Your task to perform on an android device: open app "Roku - Official Remote Control" (install if not already installed) and go to login screen Image 0: 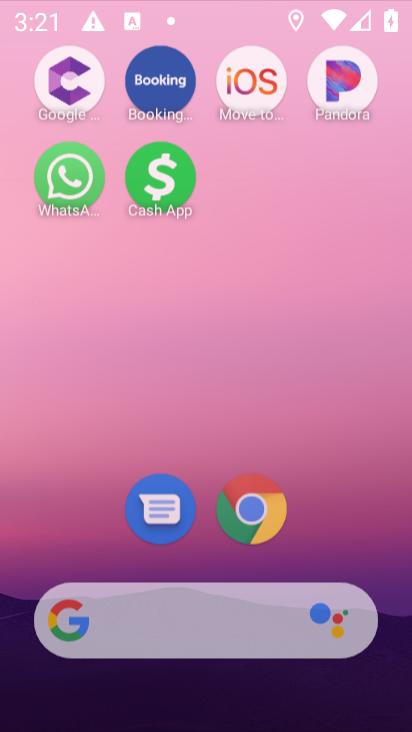
Step 0: drag from (284, 292) to (258, 22)
Your task to perform on an android device: open app "Roku - Official Remote Control" (install if not already installed) and go to login screen Image 1: 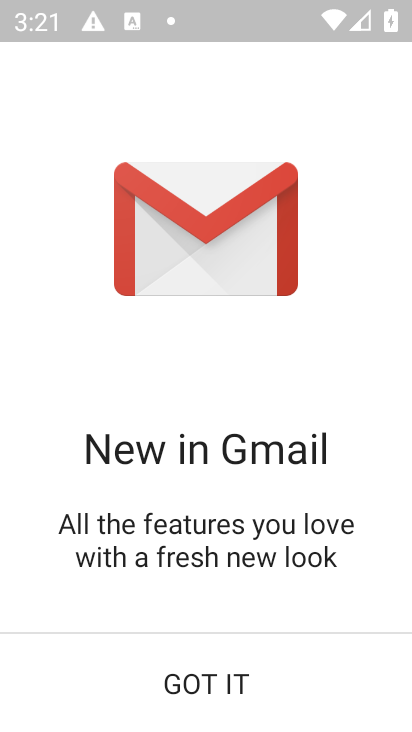
Step 1: press home button
Your task to perform on an android device: open app "Roku - Official Remote Control" (install if not already installed) and go to login screen Image 2: 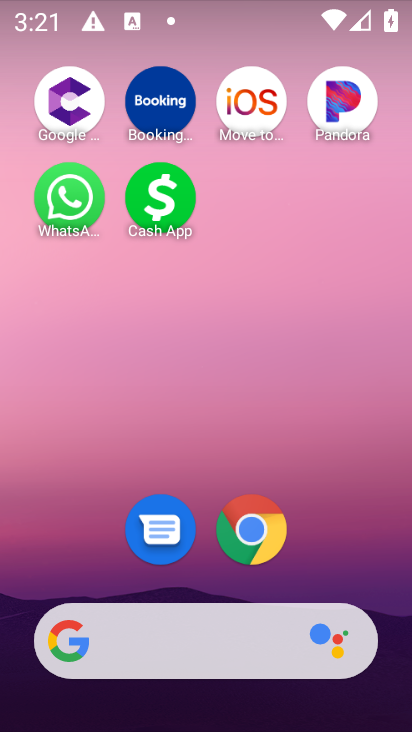
Step 2: drag from (227, 507) to (137, 115)
Your task to perform on an android device: open app "Roku - Official Remote Control" (install if not already installed) and go to login screen Image 3: 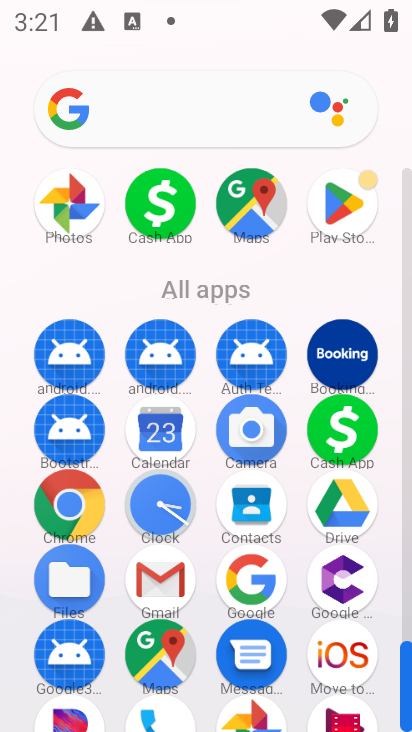
Step 3: click (331, 206)
Your task to perform on an android device: open app "Roku - Official Remote Control" (install if not already installed) and go to login screen Image 4: 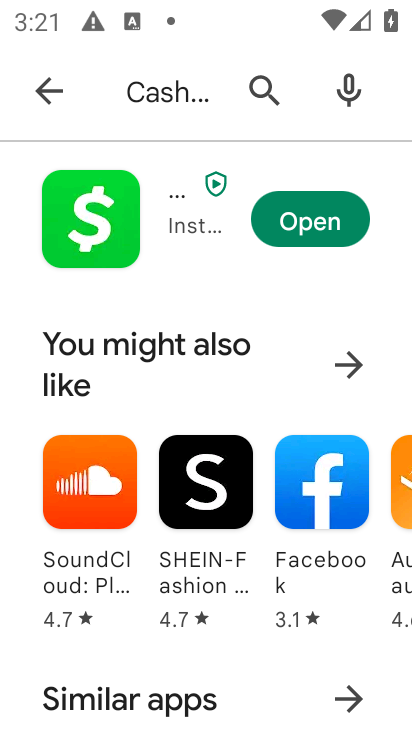
Step 4: press back button
Your task to perform on an android device: open app "Roku - Official Remote Control" (install if not already installed) and go to login screen Image 5: 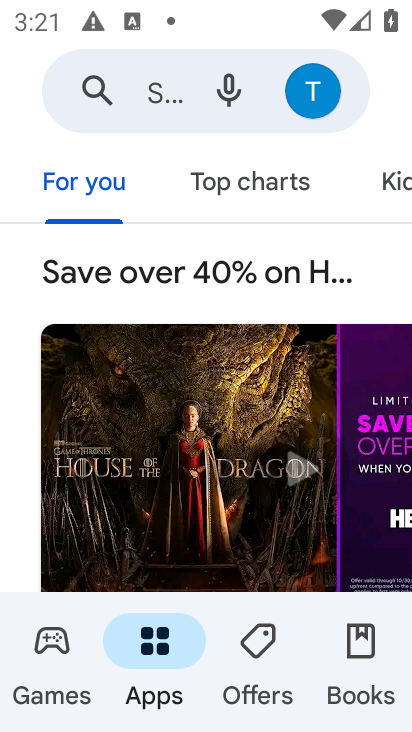
Step 5: click (151, 86)
Your task to perform on an android device: open app "Roku - Official Remote Control" (install if not already installed) and go to login screen Image 6: 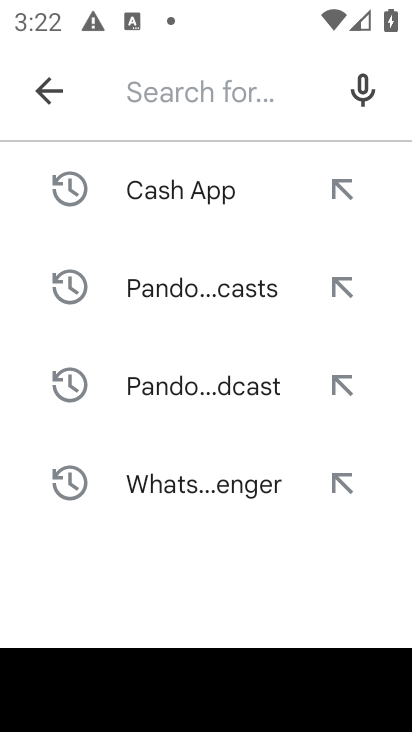
Step 6: type "Roku - Official Remote Control"
Your task to perform on an android device: open app "Roku - Official Remote Control" (install if not already installed) and go to login screen Image 7: 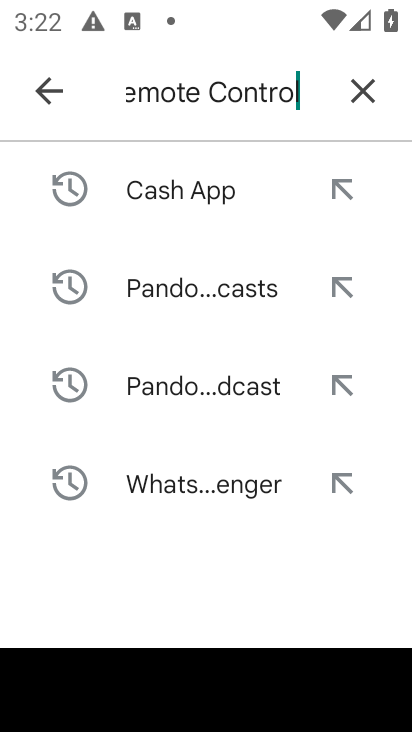
Step 7: press enter
Your task to perform on an android device: open app "Roku - Official Remote Control" (install if not already installed) and go to login screen Image 8: 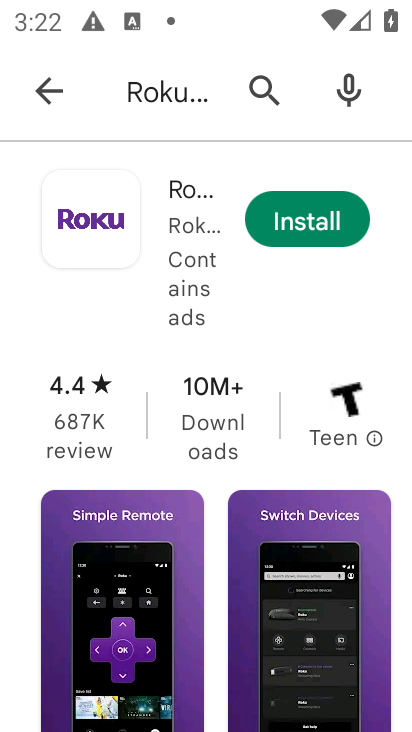
Step 8: click (311, 239)
Your task to perform on an android device: open app "Roku - Official Remote Control" (install if not already installed) and go to login screen Image 9: 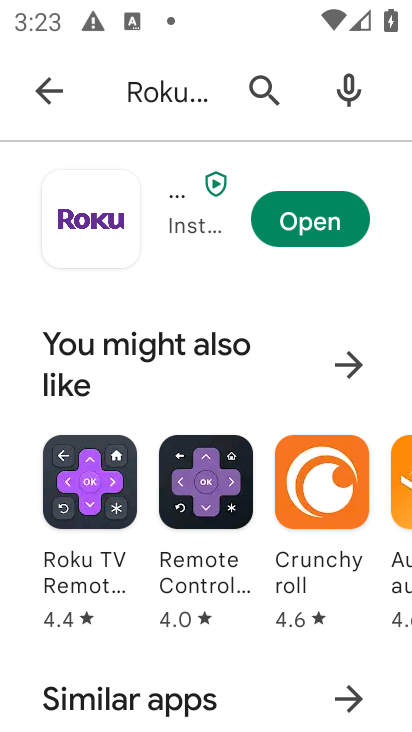
Step 9: click (327, 225)
Your task to perform on an android device: open app "Roku - Official Remote Control" (install if not already installed) and go to login screen Image 10: 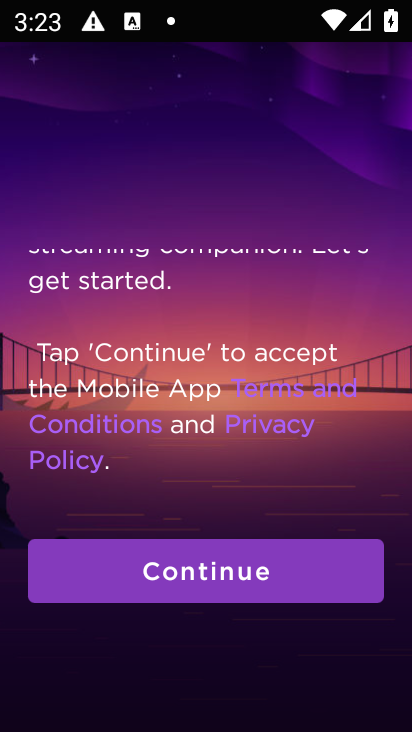
Step 10: click (224, 571)
Your task to perform on an android device: open app "Roku - Official Remote Control" (install if not already installed) and go to login screen Image 11: 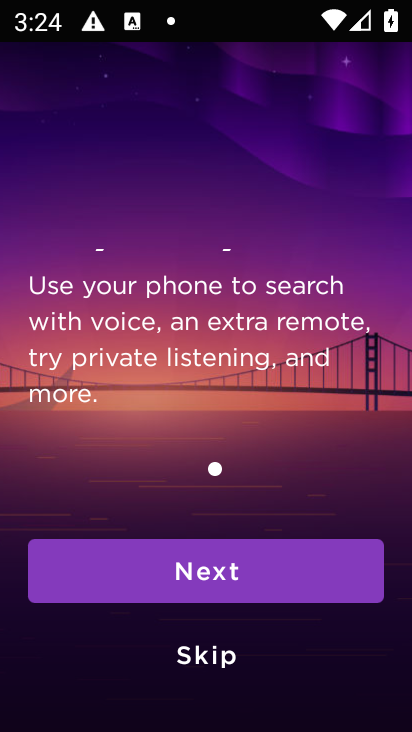
Step 11: click (218, 573)
Your task to perform on an android device: open app "Roku - Official Remote Control" (install if not already installed) and go to login screen Image 12: 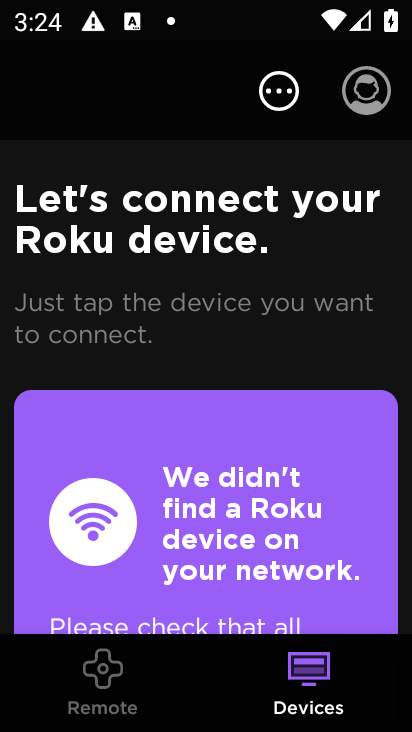
Step 12: task complete